Your task to perform on an android device: turn off sleep mode Image 0: 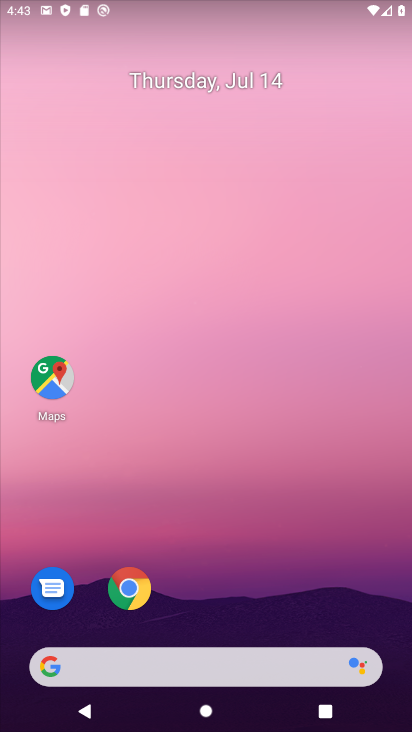
Step 0: drag from (173, 633) to (275, 105)
Your task to perform on an android device: turn off sleep mode Image 1: 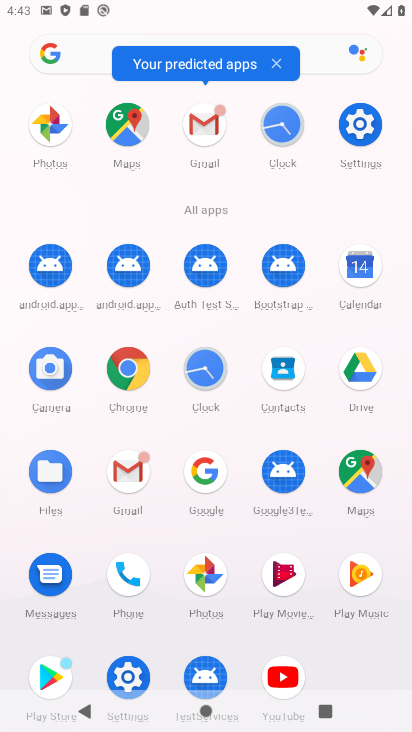
Step 1: click (122, 670)
Your task to perform on an android device: turn off sleep mode Image 2: 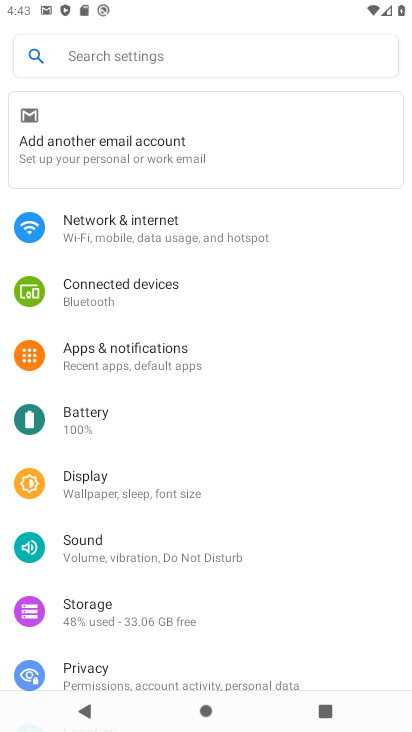
Step 2: click (132, 488)
Your task to perform on an android device: turn off sleep mode Image 3: 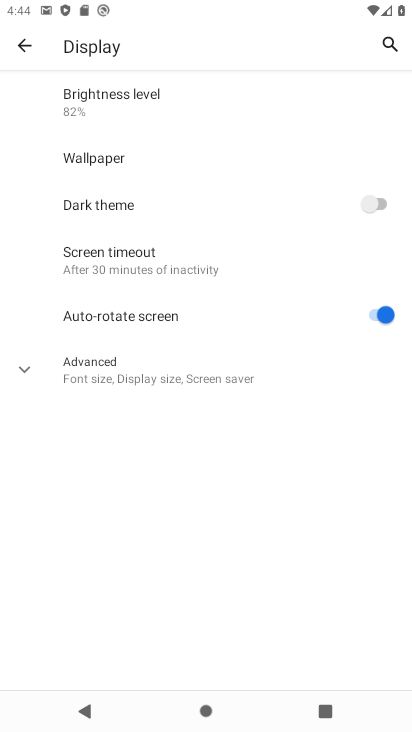
Step 3: click (185, 364)
Your task to perform on an android device: turn off sleep mode Image 4: 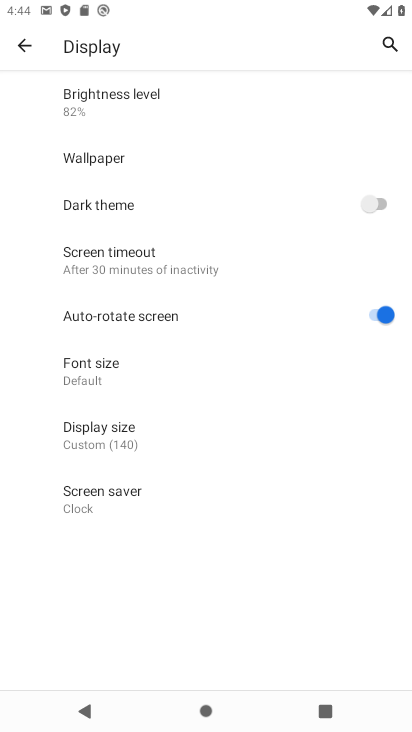
Step 4: task complete